Your task to perform on an android device: Search for amazon basics triple a on ebay, select the first entry, add it to the cart, then select checkout. Image 0: 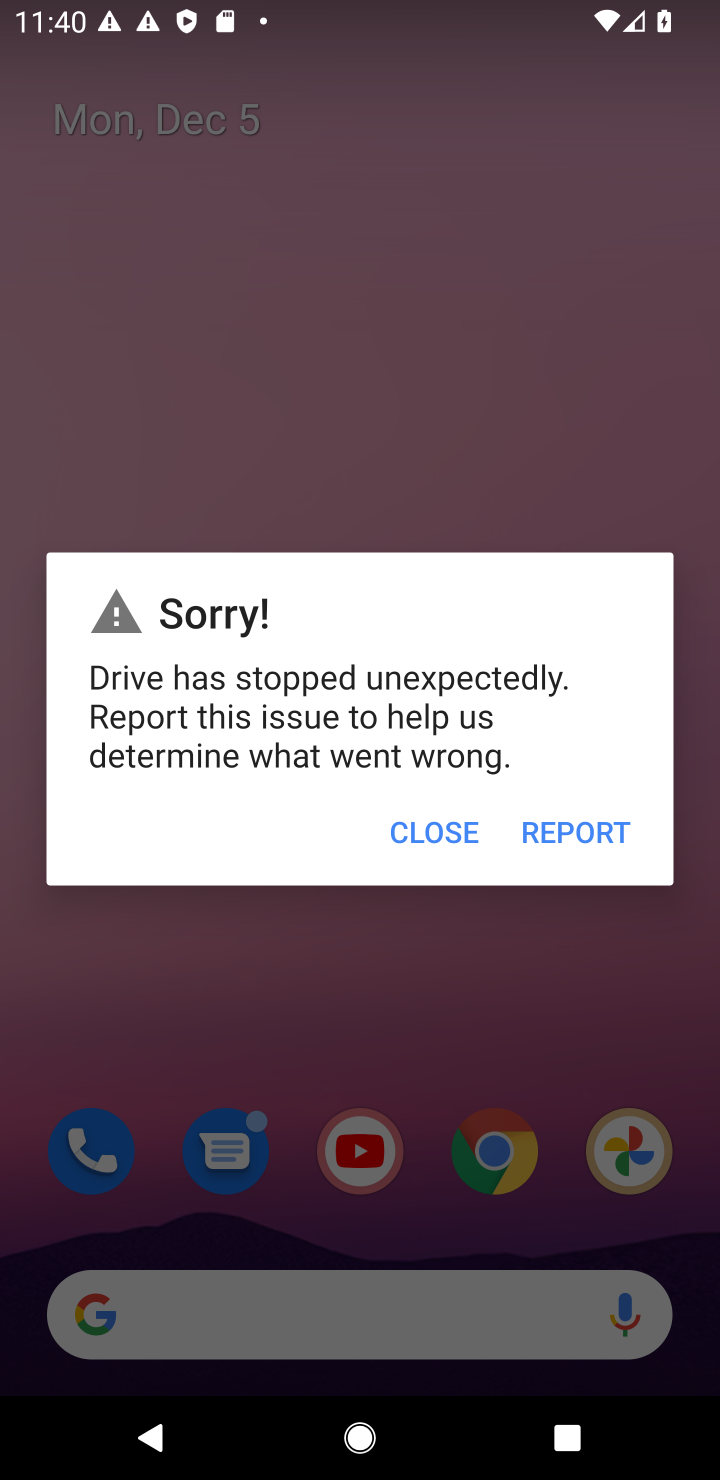
Step 0: press home button
Your task to perform on an android device: Search for amazon basics triple a on ebay, select the first entry, add it to the cart, then select checkout. Image 1: 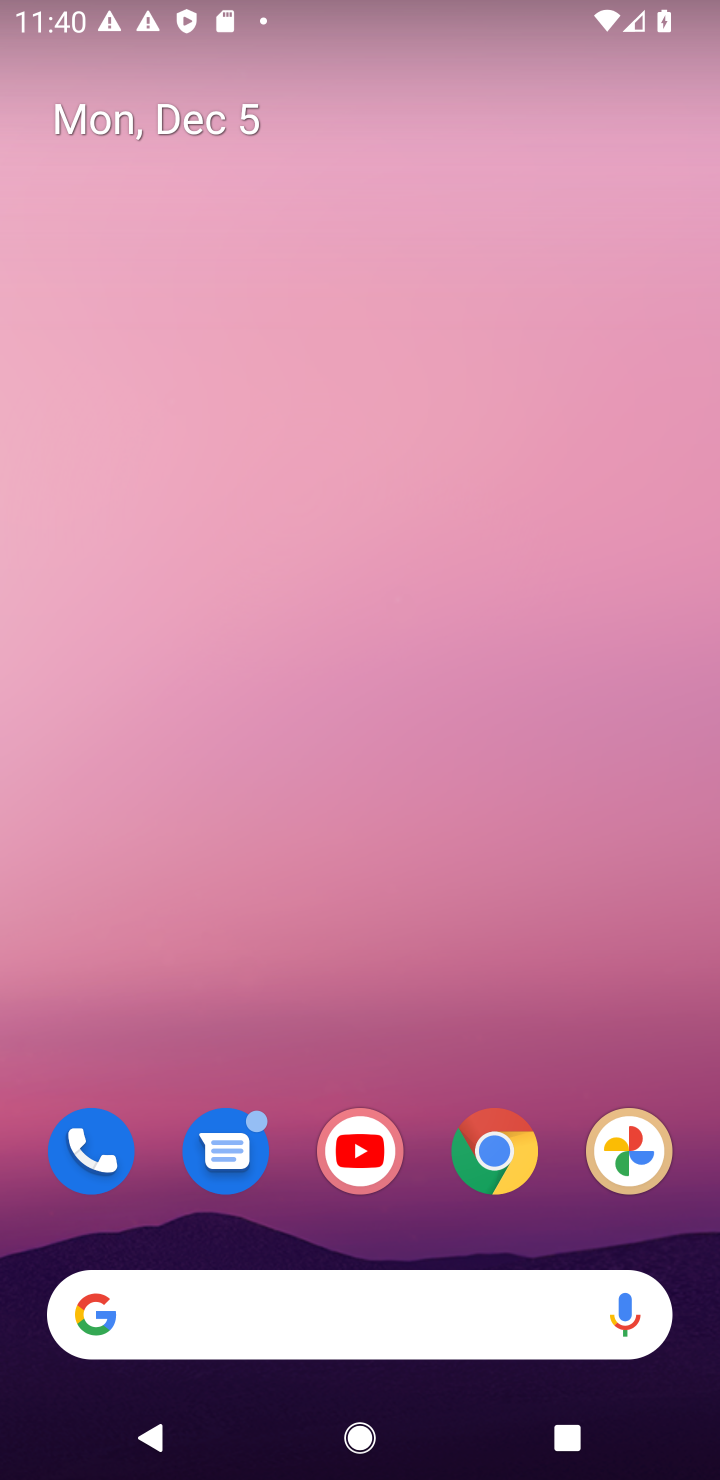
Step 1: click (504, 1158)
Your task to perform on an android device: Search for amazon basics triple a on ebay, select the first entry, add it to the cart, then select checkout. Image 2: 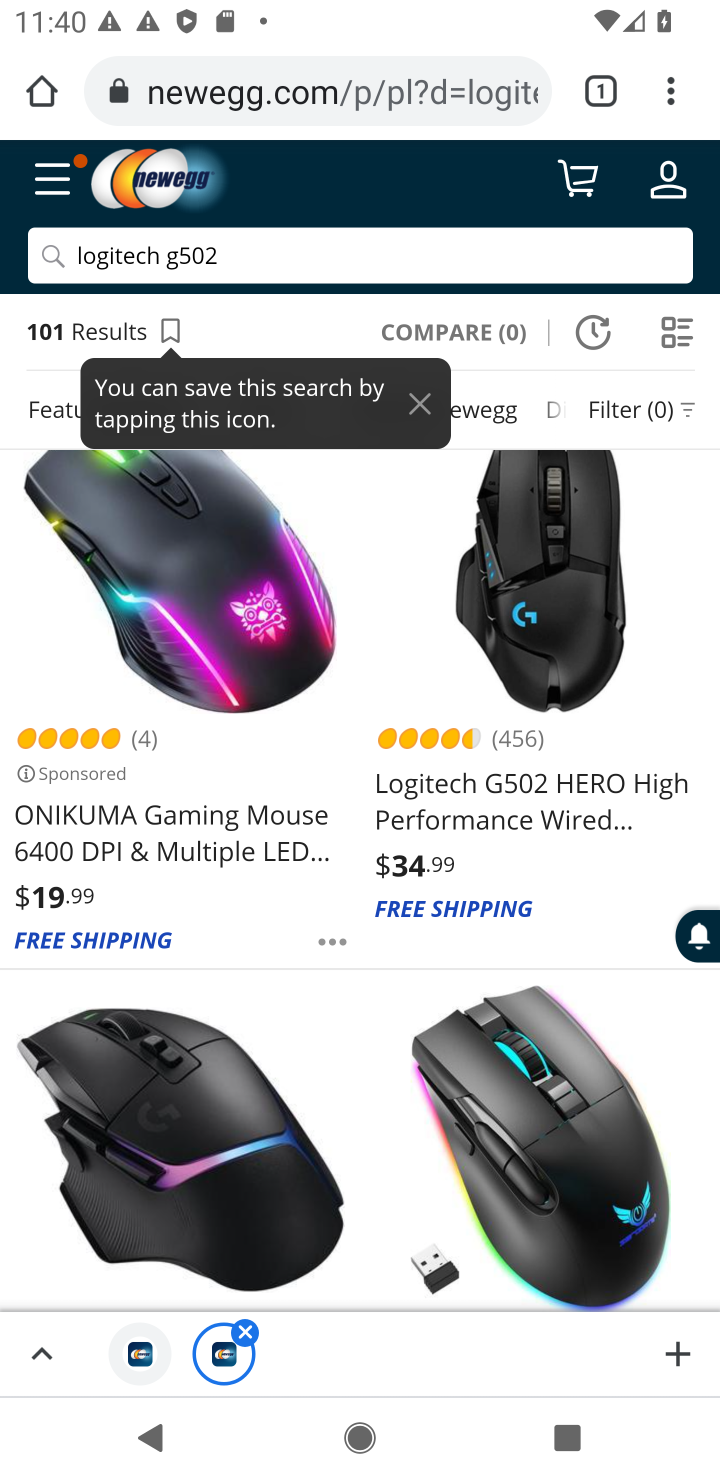
Step 2: click (210, 102)
Your task to perform on an android device: Search for amazon basics triple a on ebay, select the first entry, add it to the cart, then select checkout. Image 3: 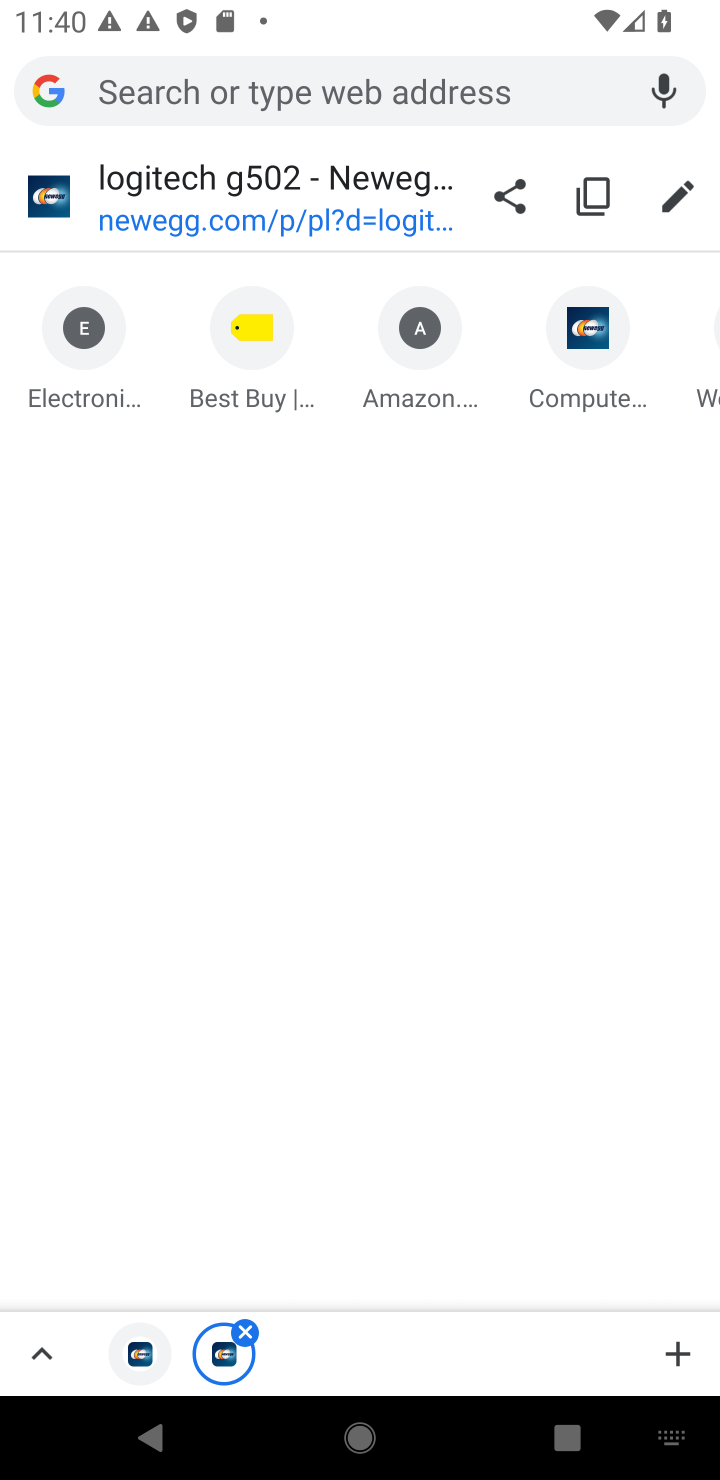
Step 3: type "ebay.com"
Your task to perform on an android device: Search for amazon basics triple a on ebay, select the first entry, add it to the cart, then select checkout. Image 4: 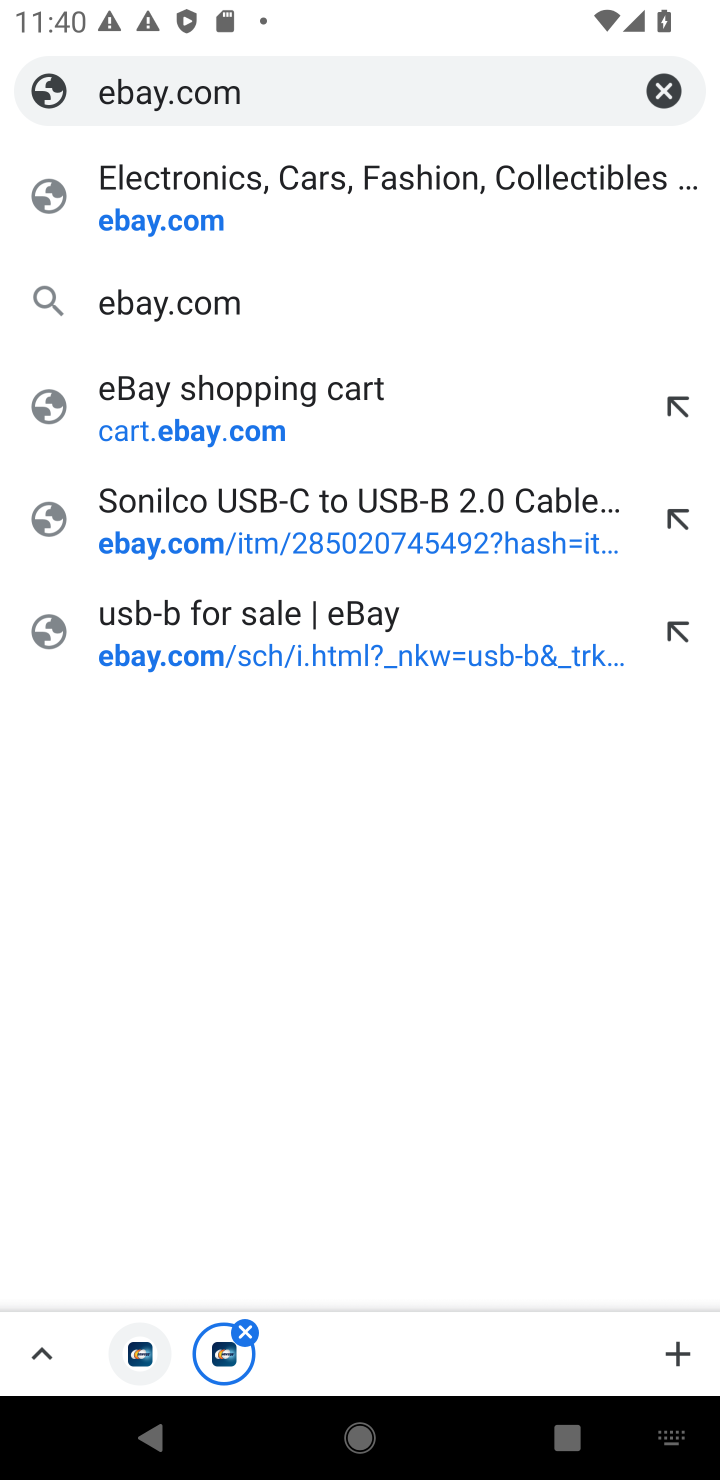
Step 4: click (147, 223)
Your task to perform on an android device: Search for amazon basics triple a on ebay, select the first entry, add it to the cart, then select checkout. Image 5: 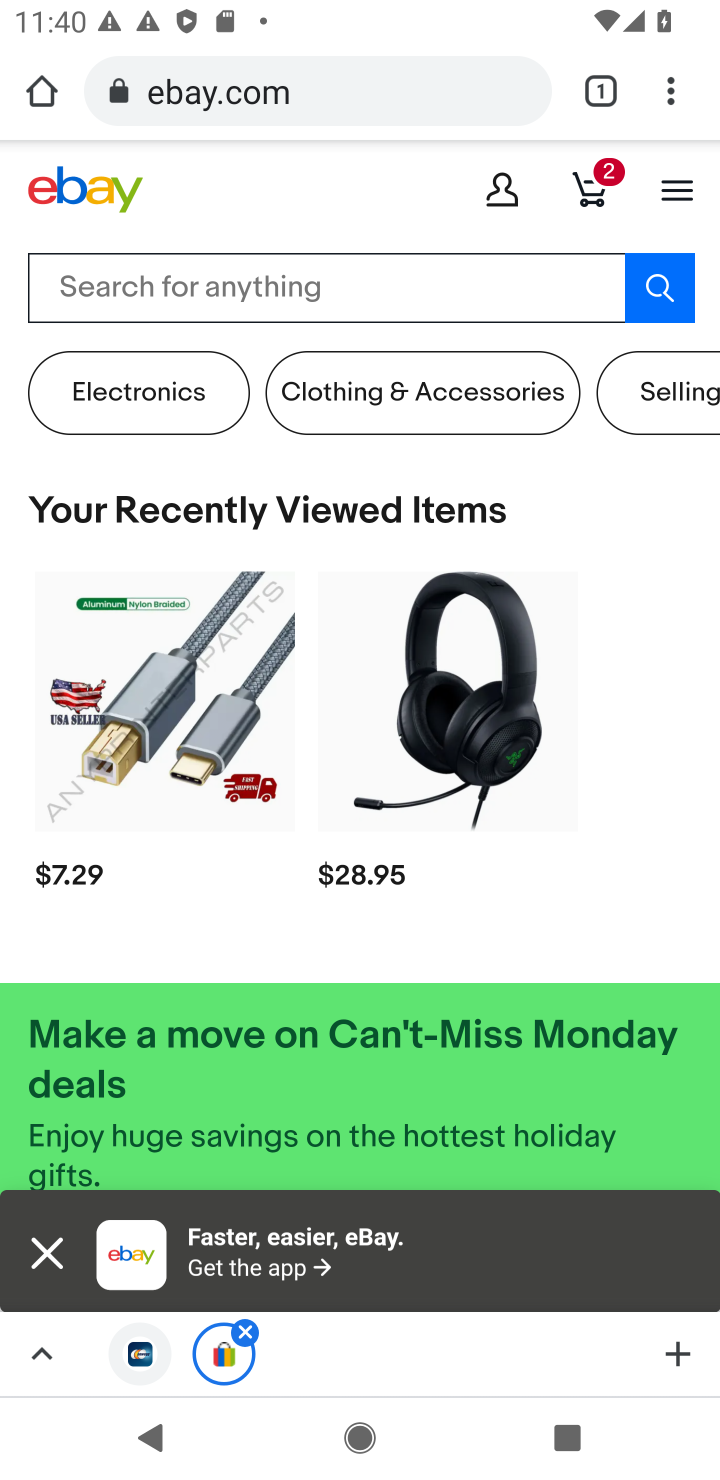
Step 5: click (154, 279)
Your task to perform on an android device: Search for amazon basics triple a on ebay, select the first entry, add it to the cart, then select checkout. Image 6: 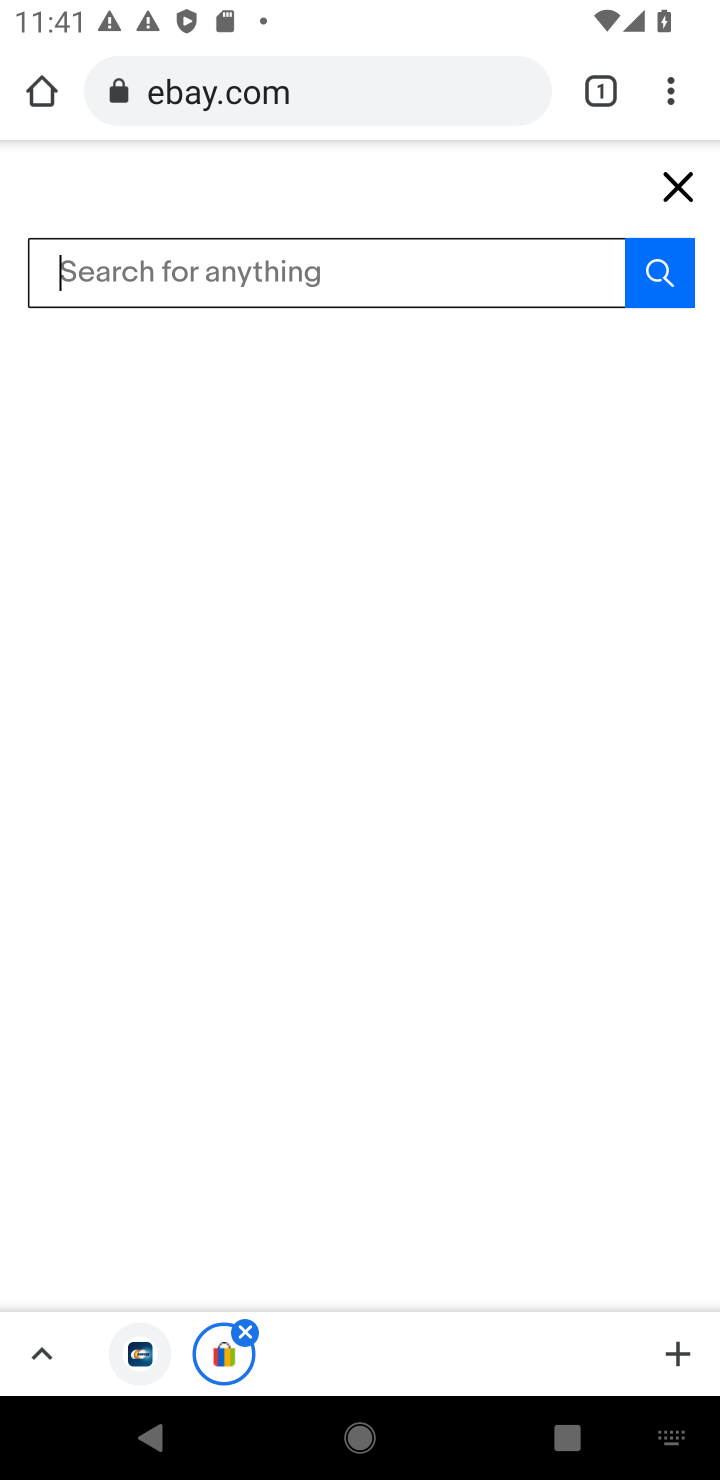
Step 6: type "amazon basics triple a"
Your task to perform on an android device: Search for amazon basics triple a on ebay, select the first entry, add it to the cart, then select checkout. Image 7: 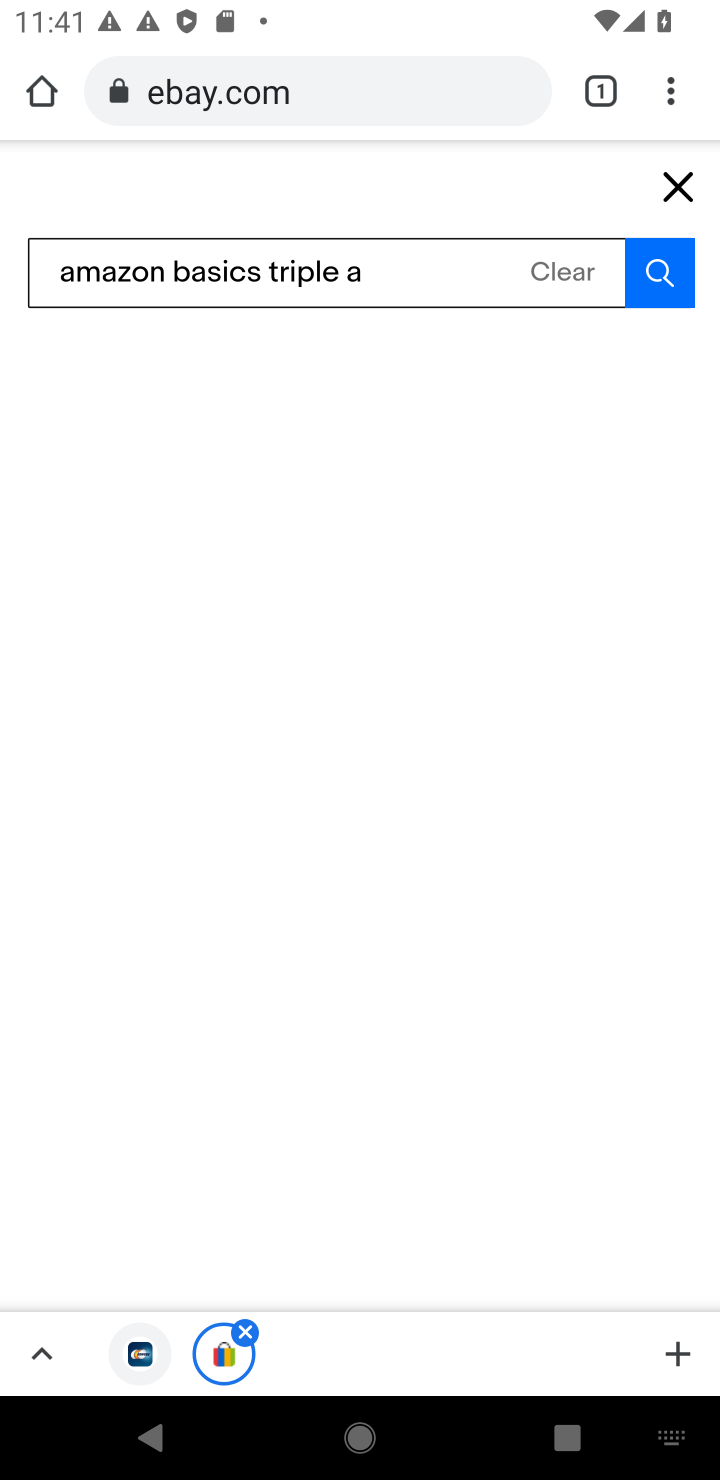
Step 7: click (667, 276)
Your task to perform on an android device: Search for amazon basics triple a on ebay, select the first entry, add it to the cart, then select checkout. Image 8: 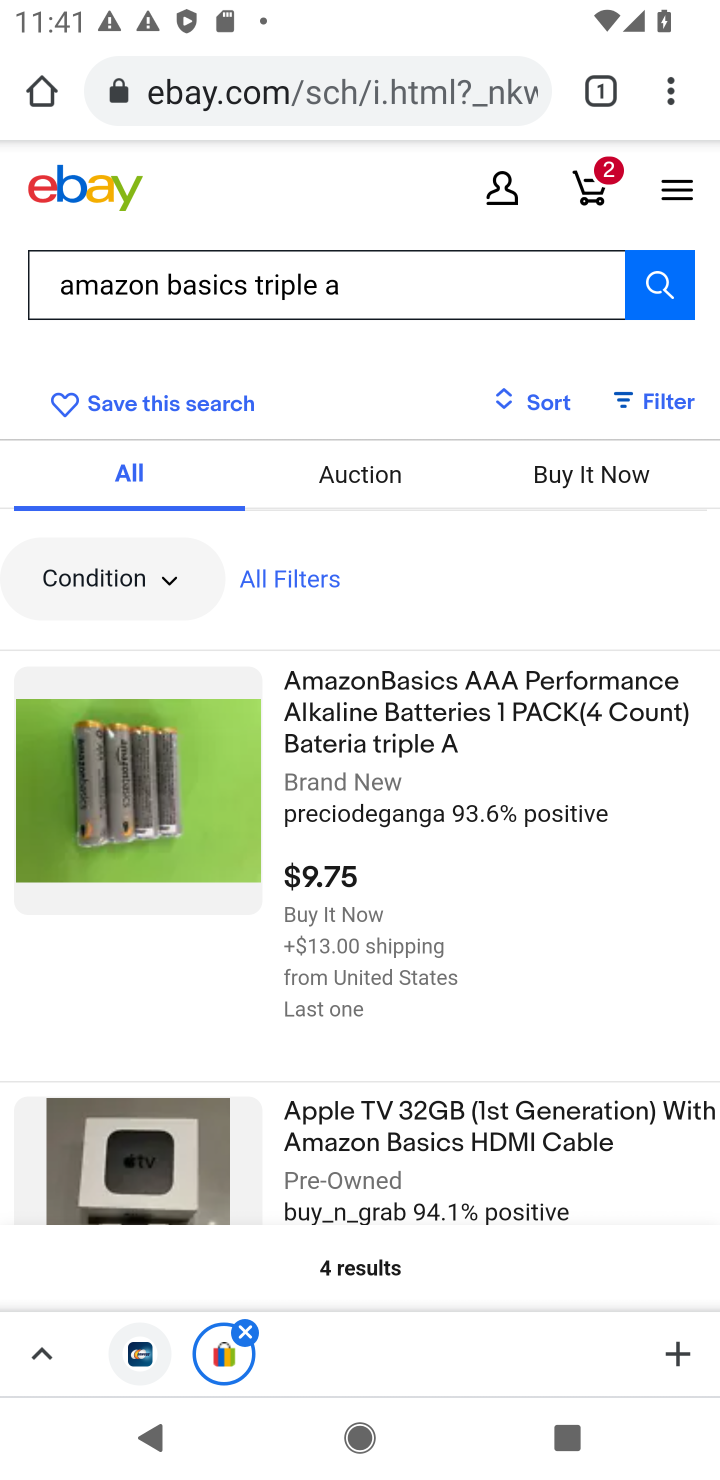
Step 8: click (347, 736)
Your task to perform on an android device: Search for amazon basics triple a on ebay, select the first entry, add it to the cart, then select checkout. Image 9: 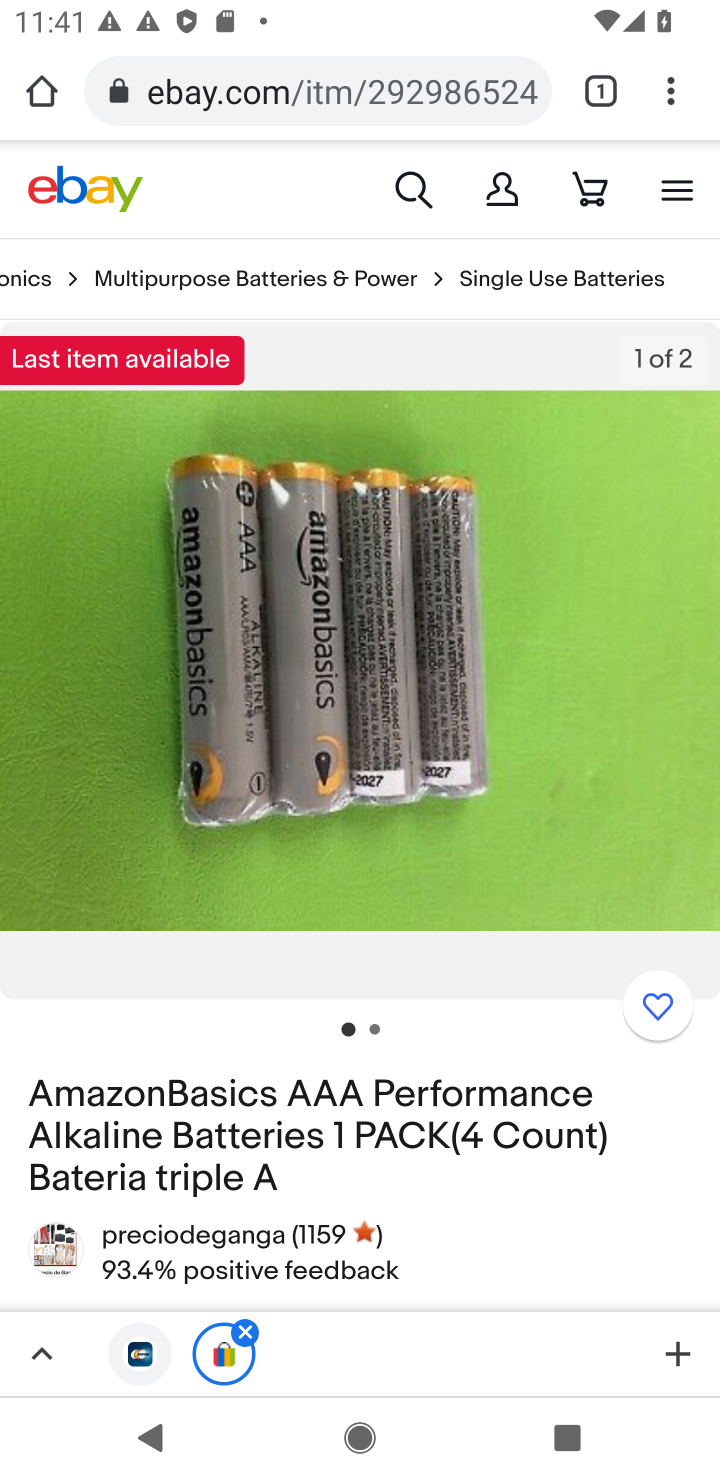
Step 9: drag from (382, 825) to (384, 467)
Your task to perform on an android device: Search for amazon basics triple a on ebay, select the first entry, add it to the cart, then select checkout. Image 10: 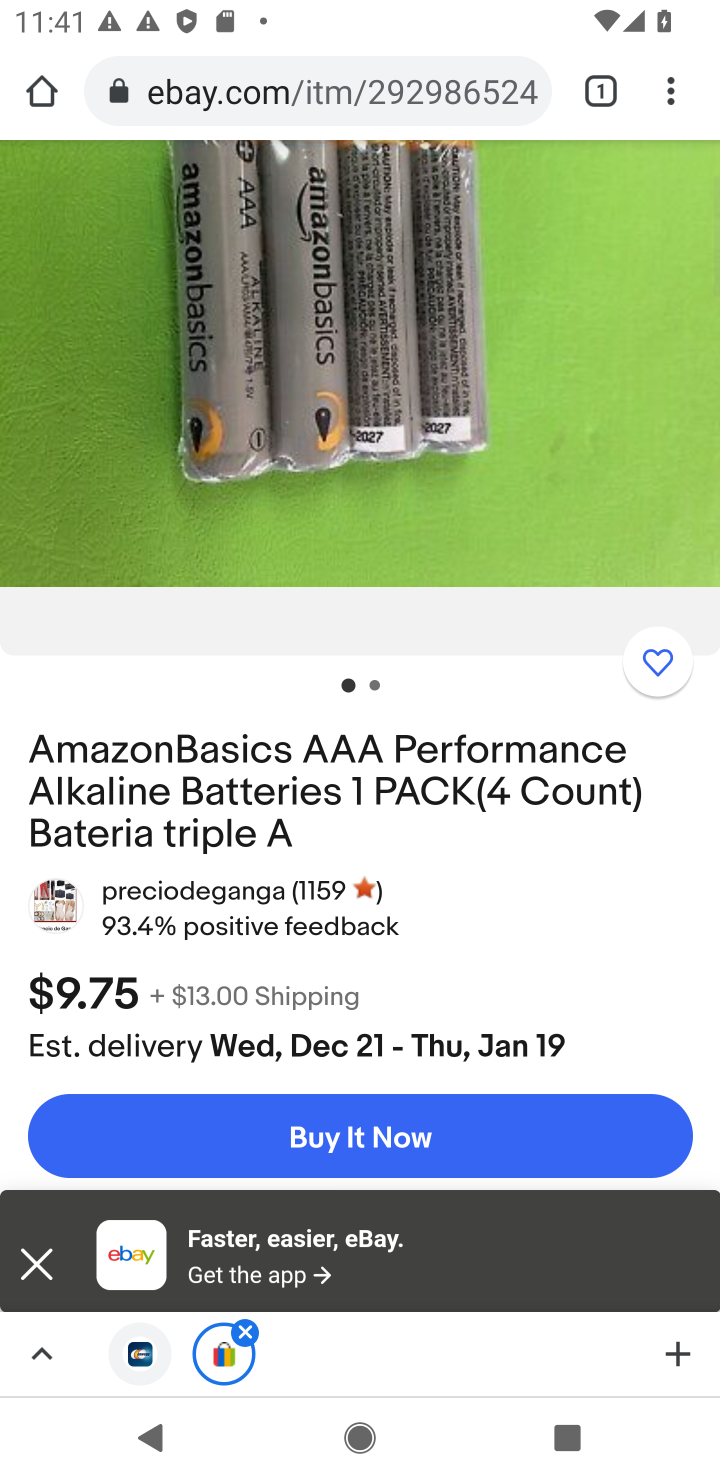
Step 10: drag from (443, 955) to (473, 442)
Your task to perform on an android device: Search for amazon basics triple a on ebay, select the first entry, add it to the cart, then select checkout. Image 11: 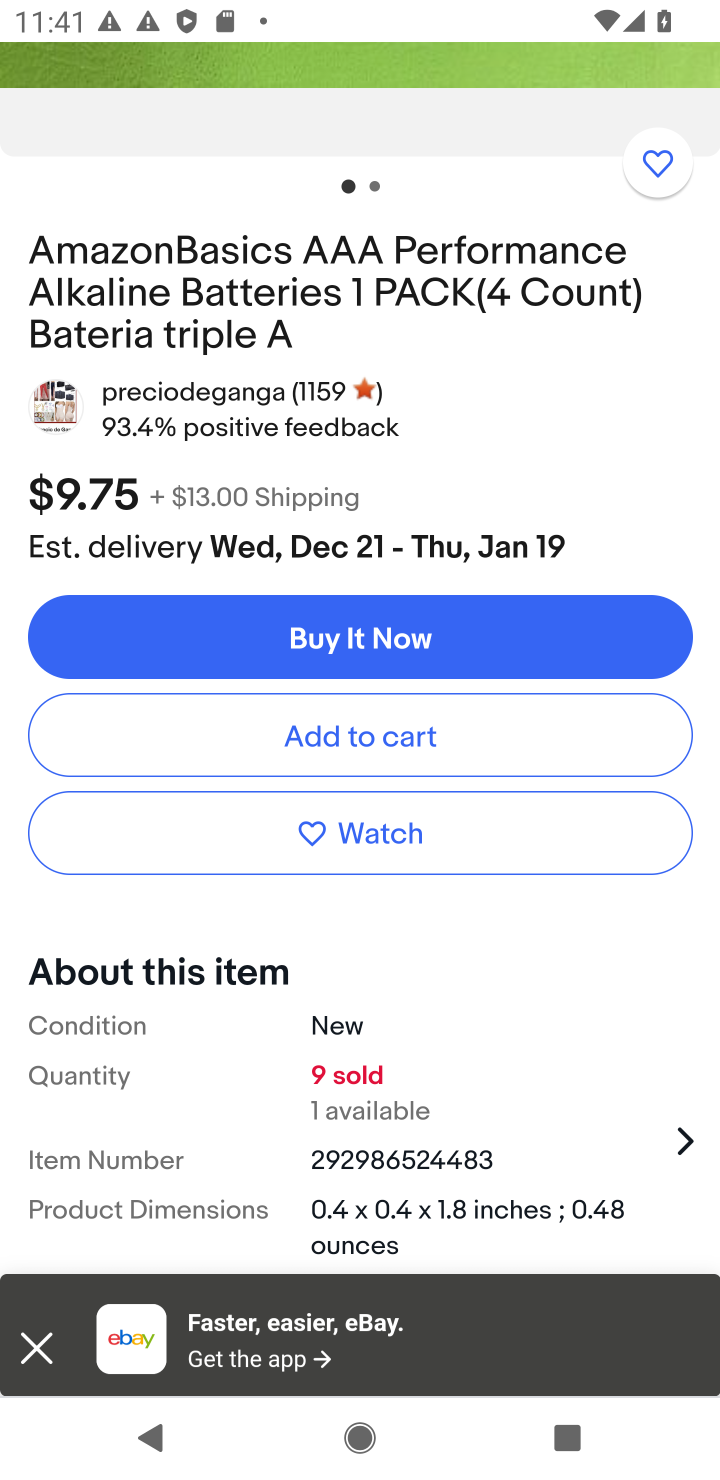
Step 11: click (334, 750)
Your task to perform on an android device: Search for amazon basics triple a on ebay, select the first entry, add it to the cart, then select checkout. Image 12: 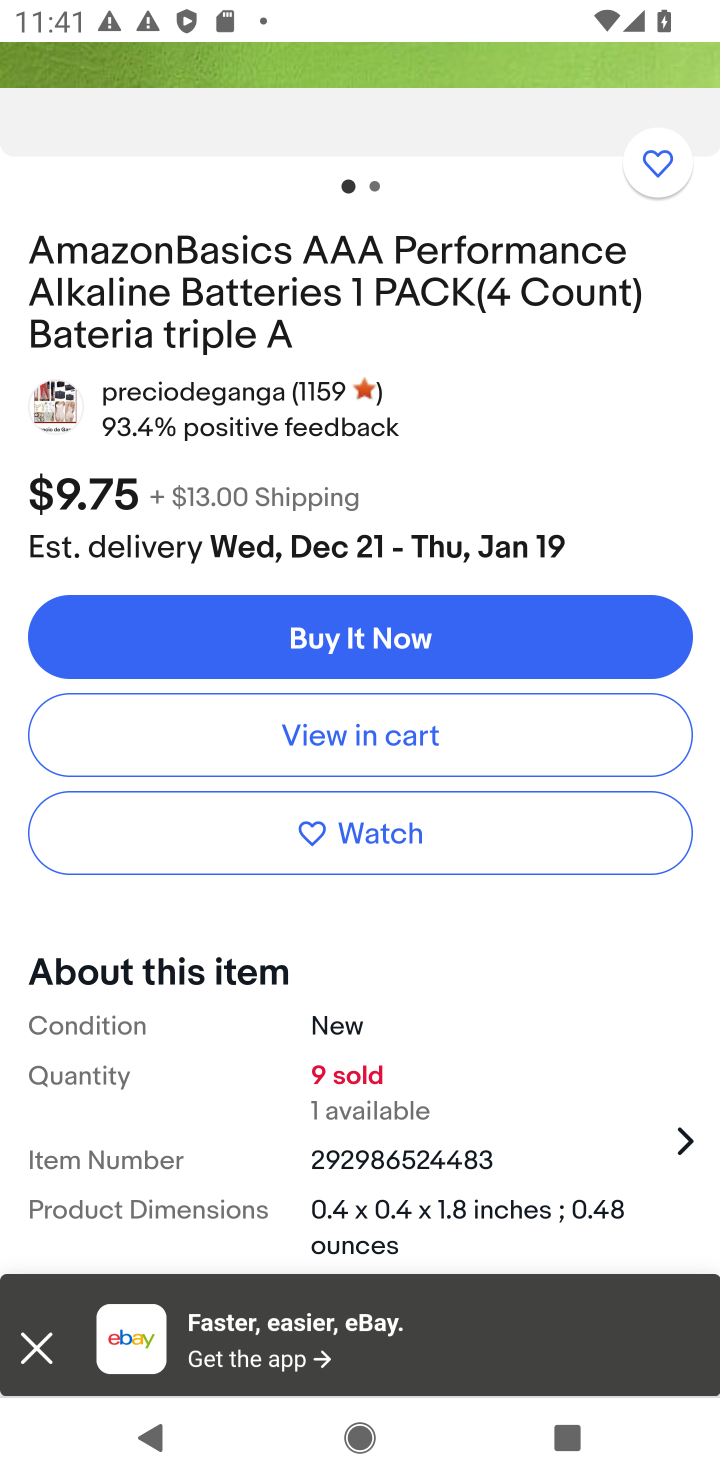
Step 12: click (334, 750)
Your task to perform on an android device: Search for amazon basics triple a on ebay, select the first entry, add it to the cart, then select checkout. Image 13: 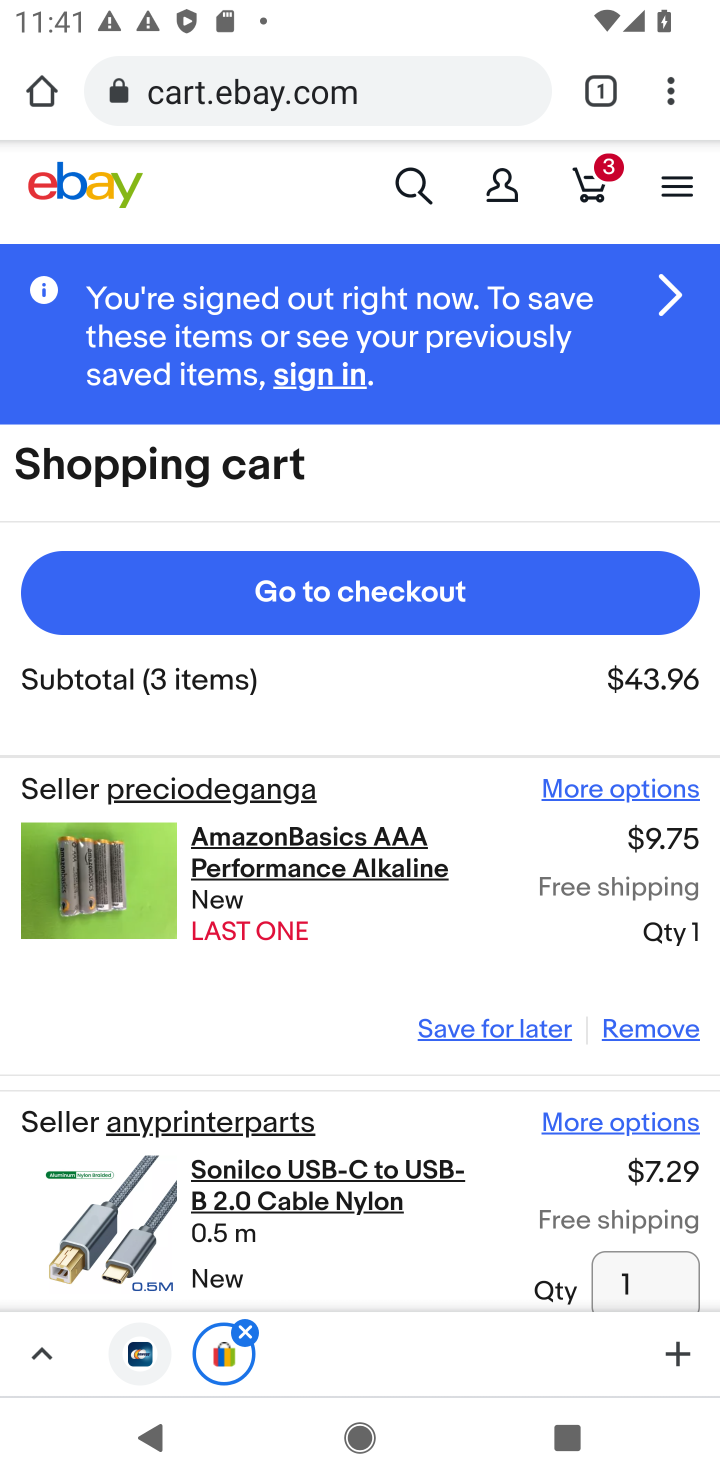
Step 13: click (346, 601)
Your task to perform on an android device: Search for amazon basics triple a on ebay, select the first entry, add it to the cart, then select checkout. Image 14: 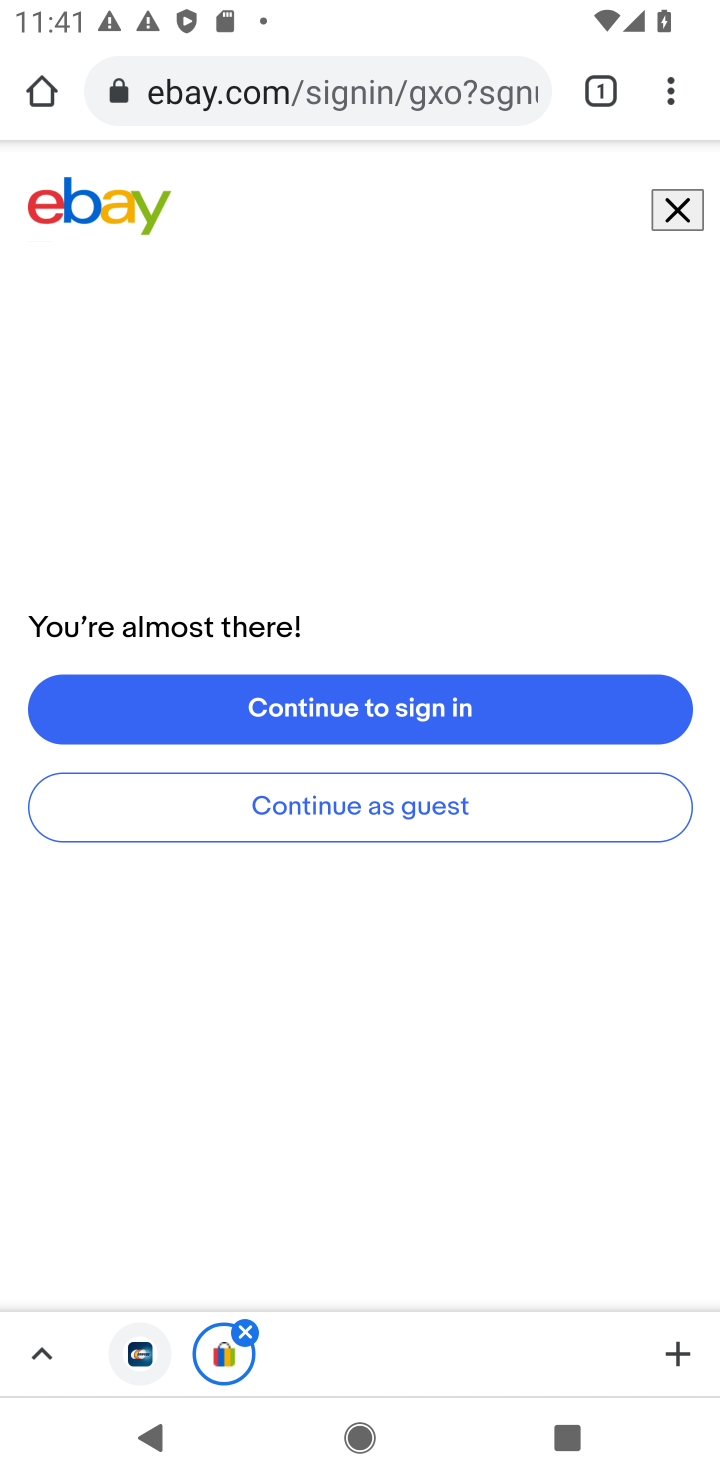
Step 14: task complete